Your task to perform on an android device: turn off improve location accuracy Image 0: 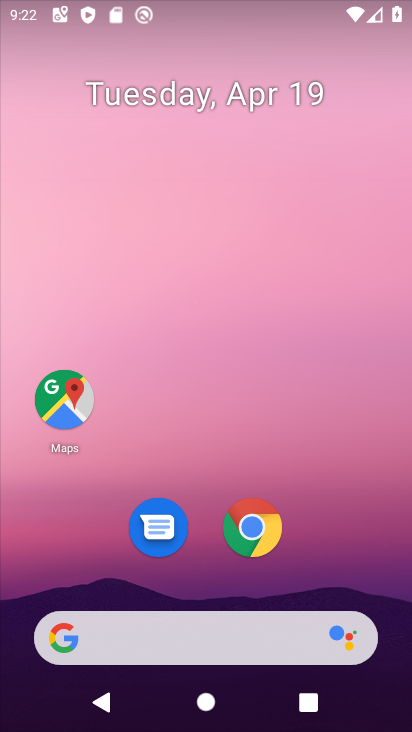
Step 0: drag from (282, 563) to (231, 245)
Your task to perform on an android device: turn off improve location accuracy Image 1: 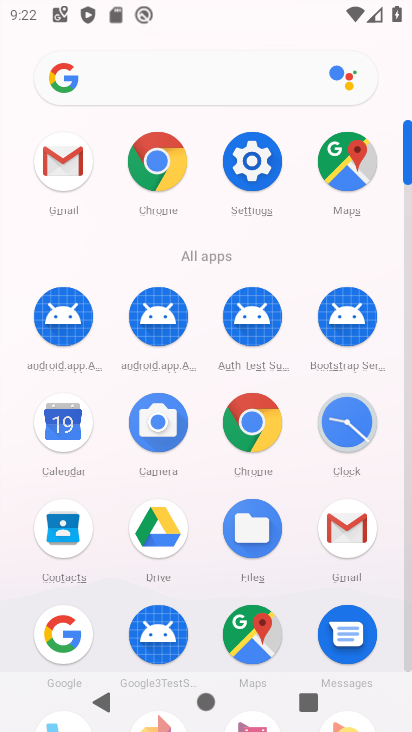
Step 1: drag from (210, 585) to (200, 414)
Your task to perform on an android device: turn off improve location accuracy Image 2: 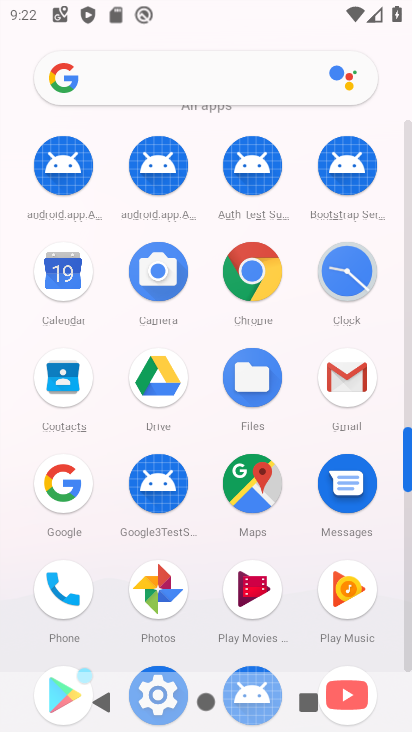
Step 2: click (161, 663)
Your task to perform on an android device: turn off improve location accuracy Image 3: 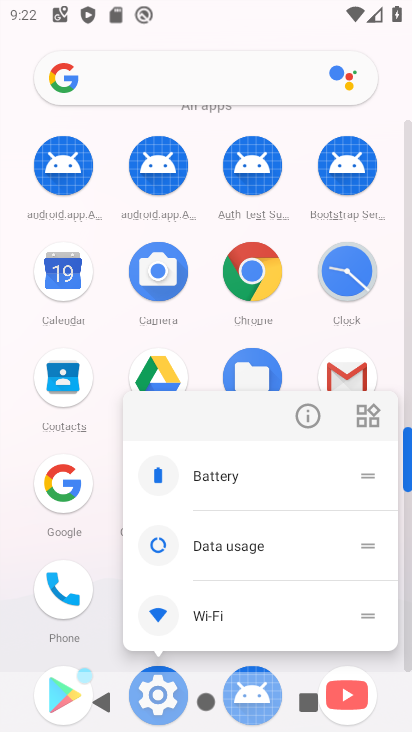
Step 3: click (165, 670)
Your task to perform on an android device: turn off improve location accuracy Image 4: 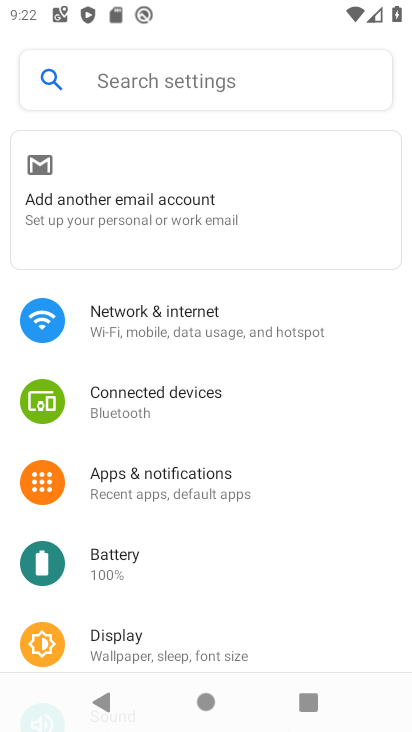
Step 4: click (139, 76)
Your task to perform on an android device: turn off improve location accuracy Image 5: 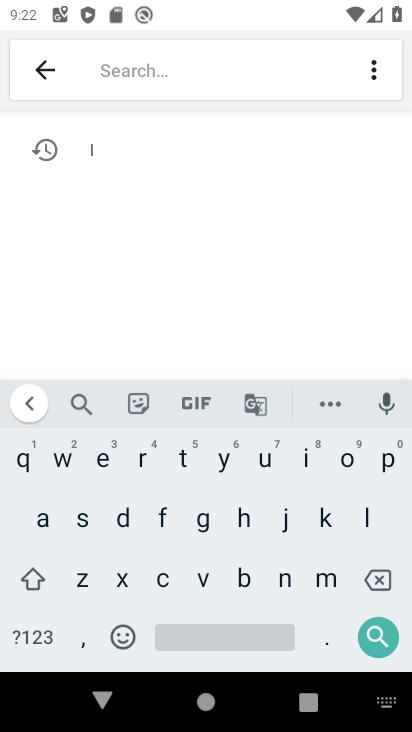
Step 5: click (366, 511)
Your task to perform on an android device: turn off improve location accuracy Image 6: 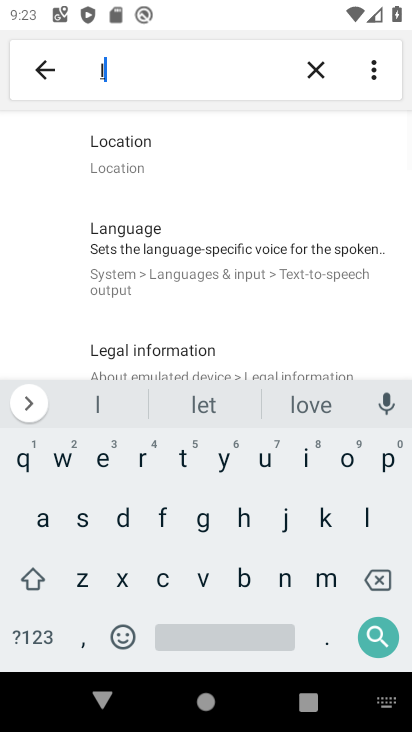
Step 6: click (150, 164)
Your task to perform on an android device: turn off improve location accuracy Image 7: 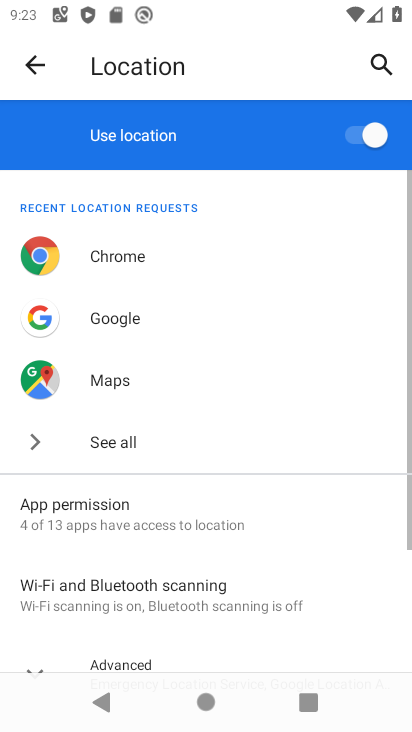
Step 7: drag from (115, 492) to (176, 150)
Your task to perform on an android device: turn off improve location accuracy Image 8: 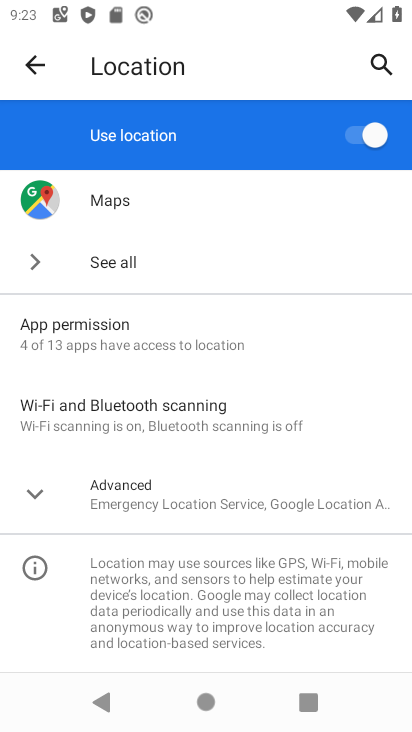
Step 8: click (33, 508)
Your task to perform on an android device: turn off improve location accuracy Image 9: 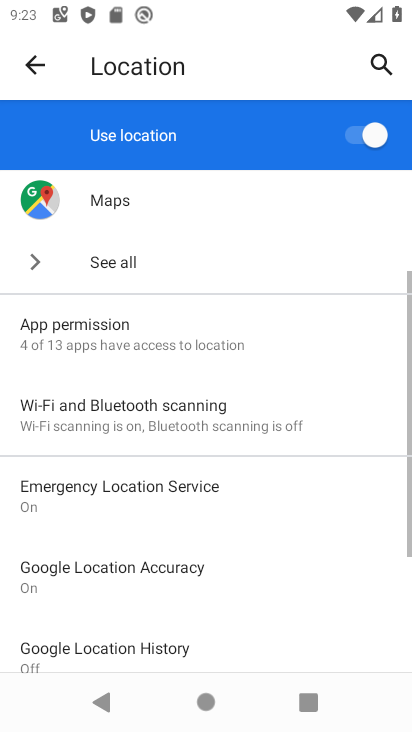
Step 9: drag from (185, 513) to (259, 314)
Your task to perform on an android device: turn off improve location accuracy Image 10: 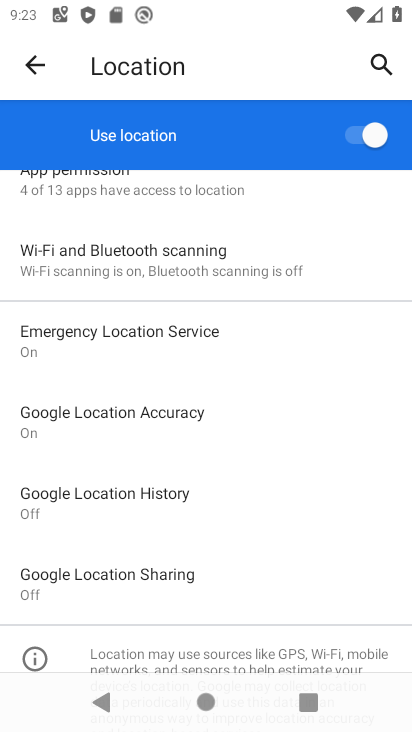
Step 10: click (160, 412)
Your task to perform on an android device: turn off improve location accuracy Image 11: 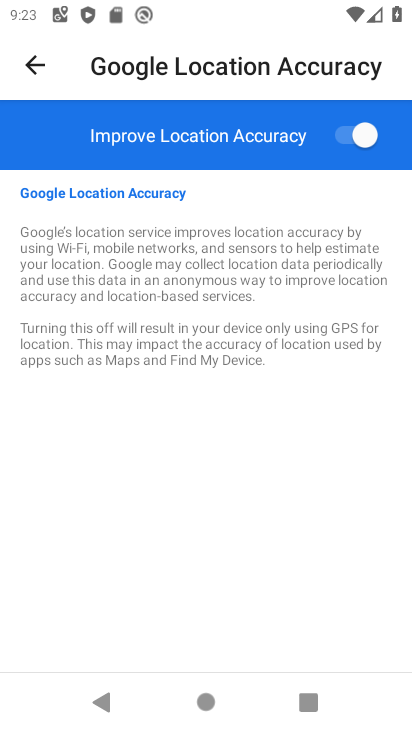
Step 11: click (338, 146)
Your task to perform on an android device: turn off improve location accuracy Image 12: 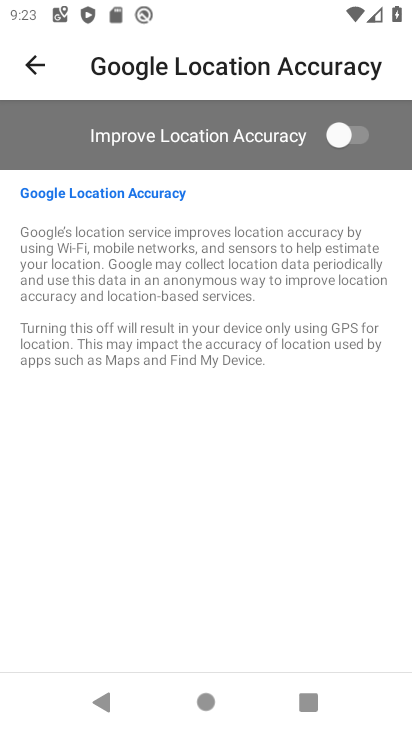
Step 12: task complete